Your task to perform on an android device: What's the weather going to be tomorrow? Image 0: 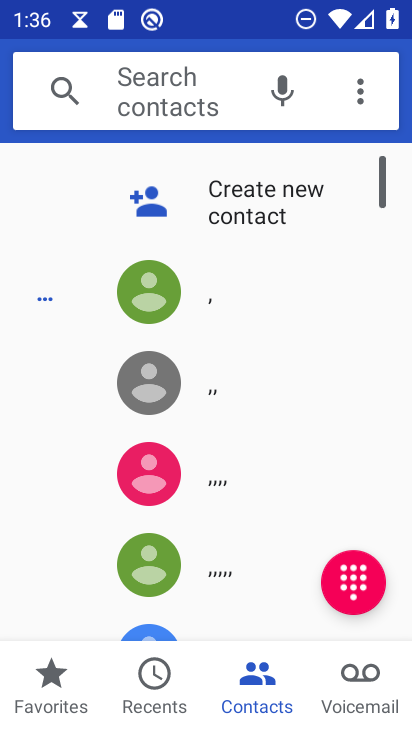
Step 0: press home button
Your task to perform on an android device: What's the weather going to be tomorrow? Image 1: 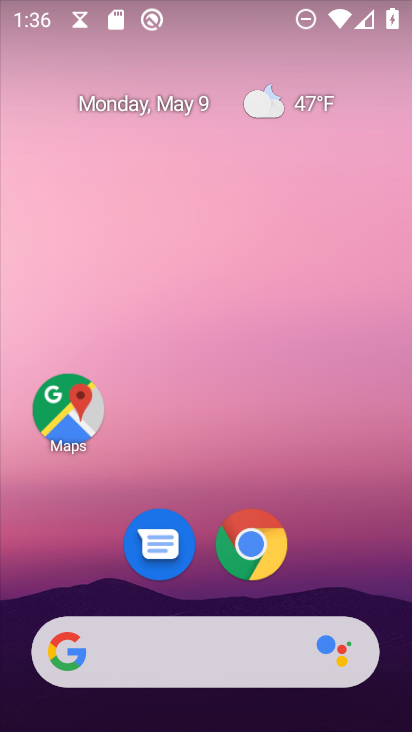
Step 1: click (299, 119)
Your task to perform on an android device: What's the weather going to be tomorrow? Image 2: 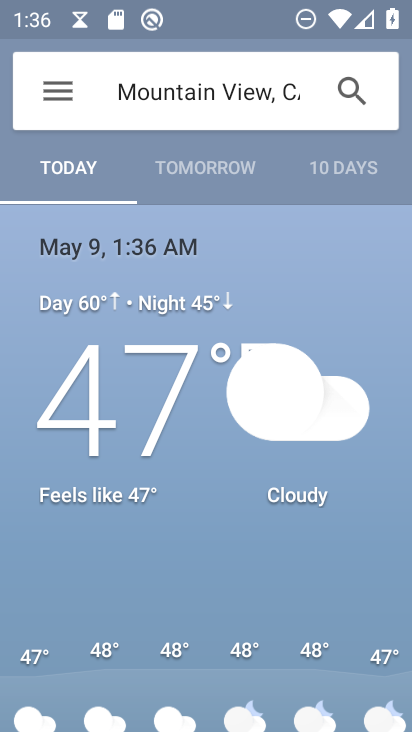
Step 2: click (240, 162)
Your task to perform on an android device: What's the weather going to be tomorrow? Image 3: 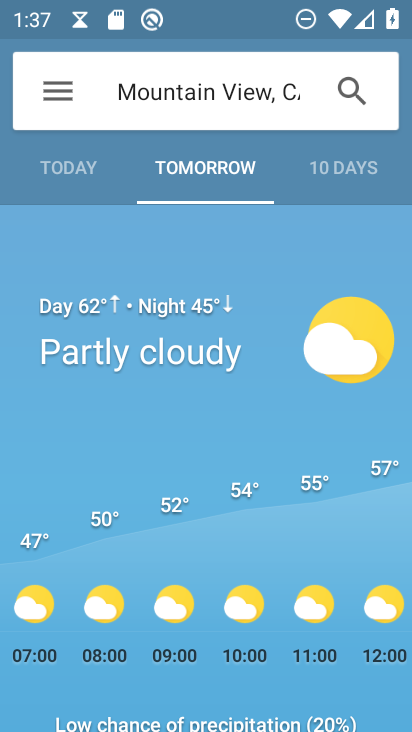
Step 3: task complete